Your task to perform on an android device: Go to battery settings Image 0: 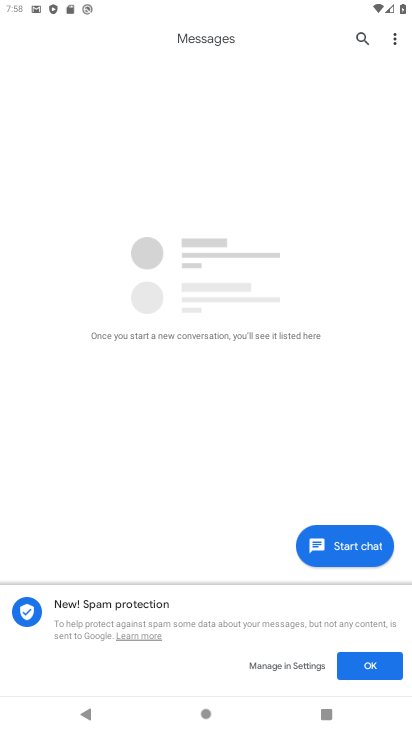
Step 0: press home button
Your task to perform on an android device: Go to battery settings Image 1: 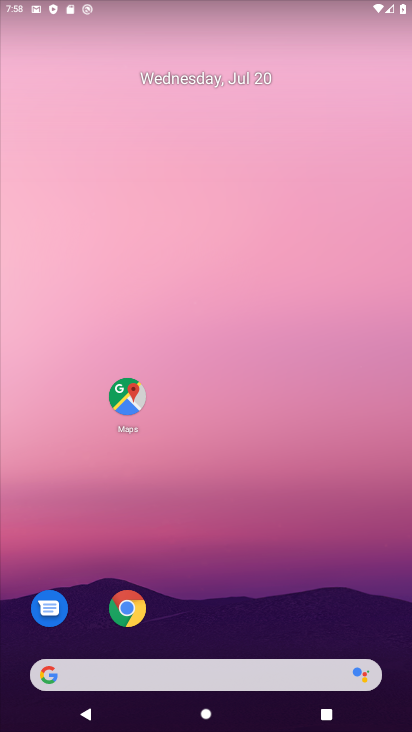
Step 1: drag from (141, 230) to (195, 130)
Your task to perform on an android device: Go to battery settings Image 2: 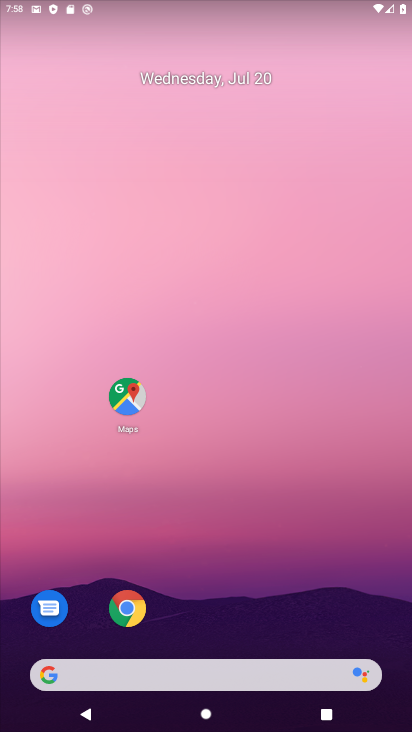
Step 2: drag from (143, 220) to (12, 486)
Your task to perform on an android device: Go to battery settings Image 3: 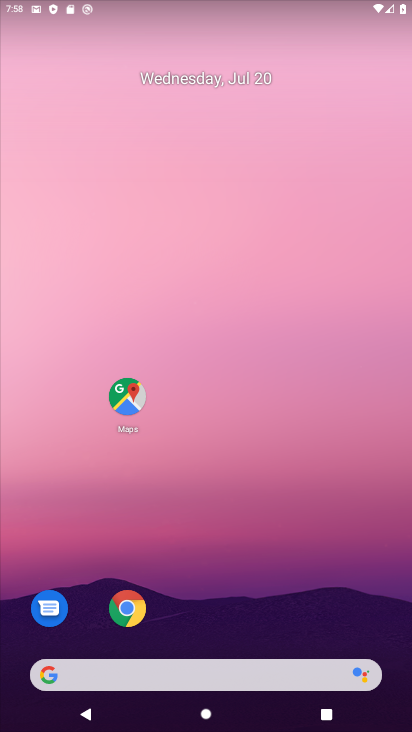
Step 3: drag from (20, 587) to (249, 32)
Your task to perform on an android device: Go to battery settings Image 4: 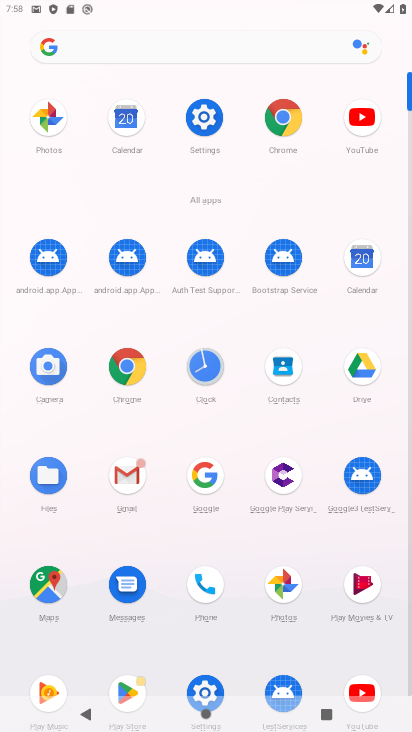
Step 4: click (194, 121)
Your task to perform on an android device: Go to battery settings Image 5: 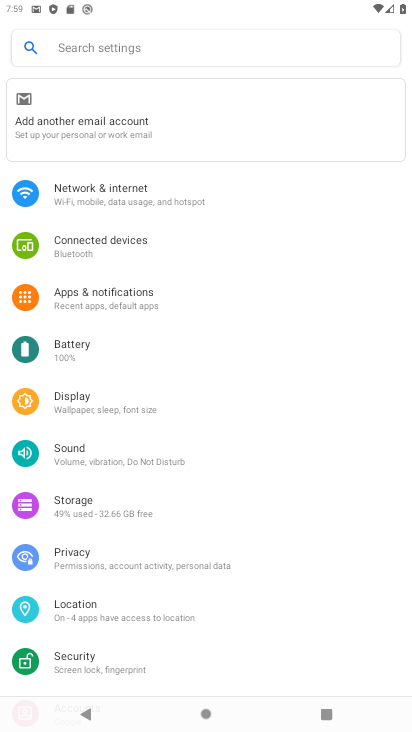
Step 5: click (166, 356)
Your task to perform on an android device: Go to battery settings Image 6: 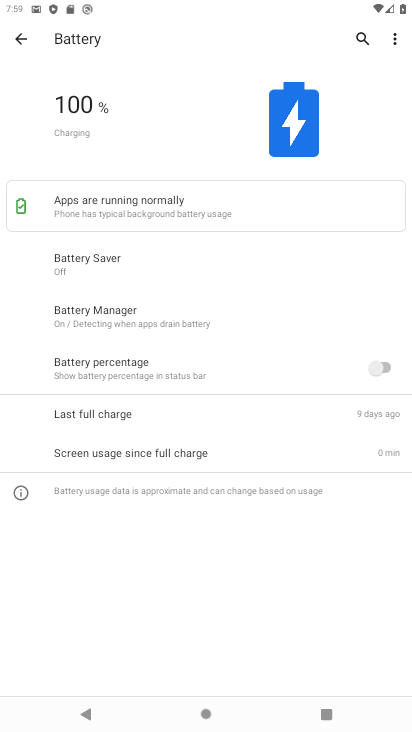
Step 6: task complete